Your task to perform on an android device: Add "razer naga" to the cart on bestbuy, then select checkout. Image 0: 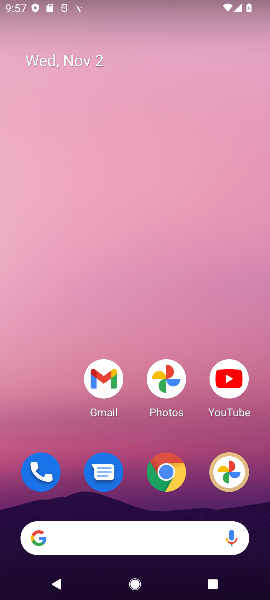
Step 0: task complete